Your task to perform on an android device: Open location settings Image 0: 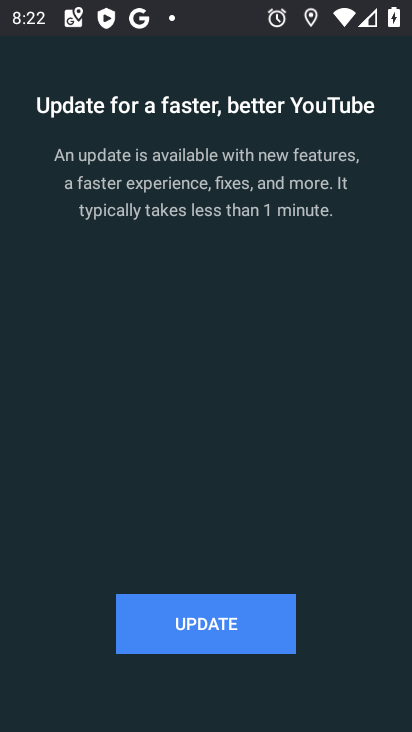
Step 0: press back button
Your task to perform on an android device: Open location settings Image 1: 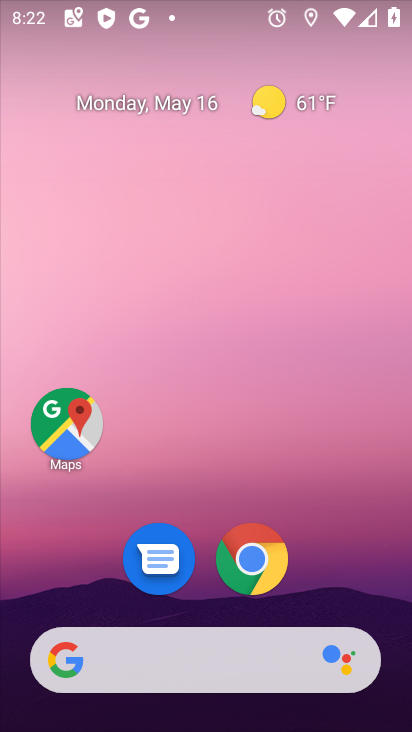
Step 1: drag from (334, 554) to (327, 230)
Your task to perform on an android device: Open location settings Image 2: 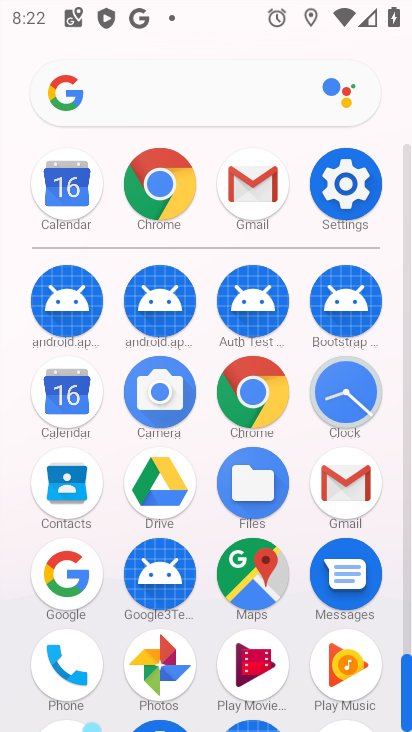
Step 2: click (344, 196)
Your task to perform on an android device: Open location settings Image 3: 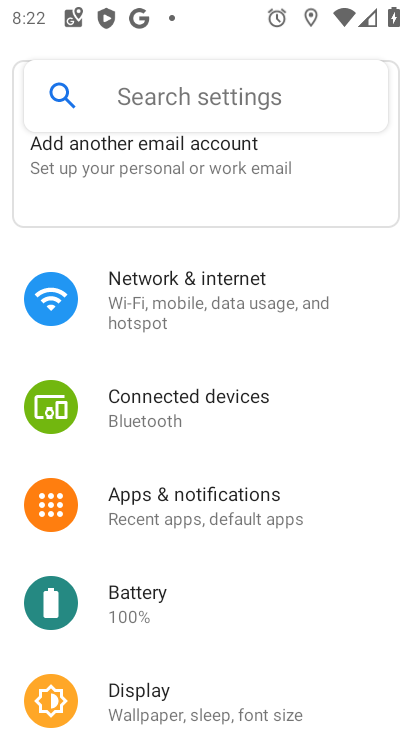
Step 3: drag from (295, 582) to (278, 210)
Your task to perform on an android device: Open location settings Image 4: 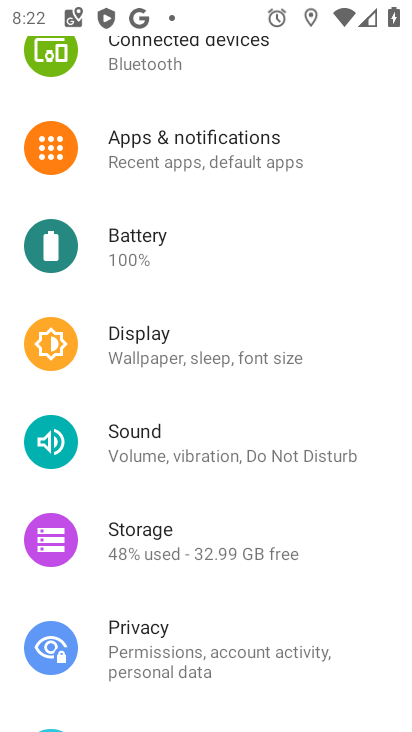
Step 4: drag from (305, 565) to (303, 221)
Your task to perform on an android device: Open location settings Image 5: 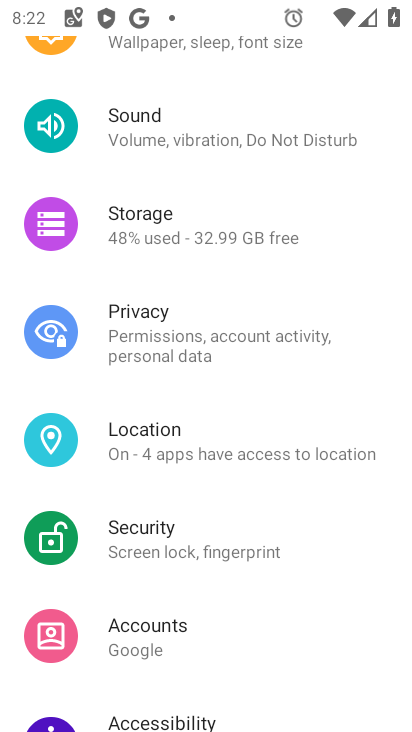
Step 5: click (262, 450)
Your task to perform on an android device: Open location settings Image 6: 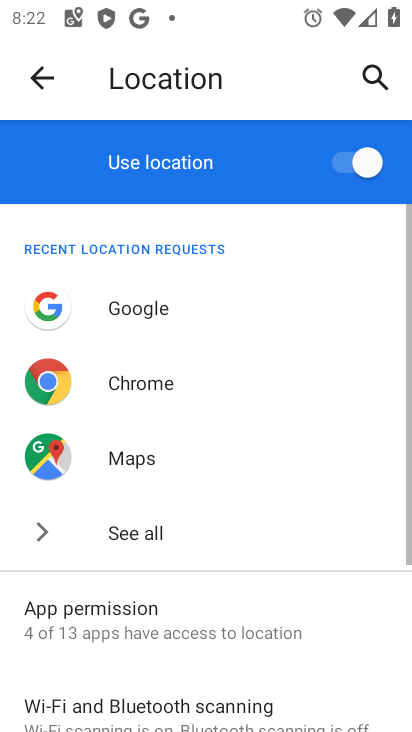
Step 6: drag from (270, 664) to (288, 289)
Your task to perform on an android device: Open location settings Image 7: 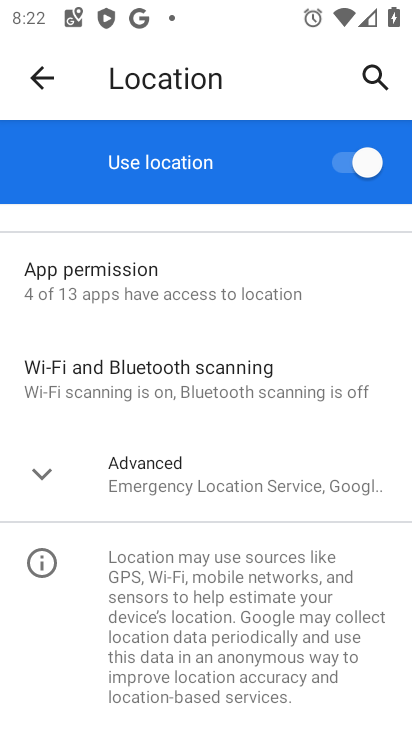
Step 7: click (33, 491)
Your task to perform on an android device: Open location settings Image 8: 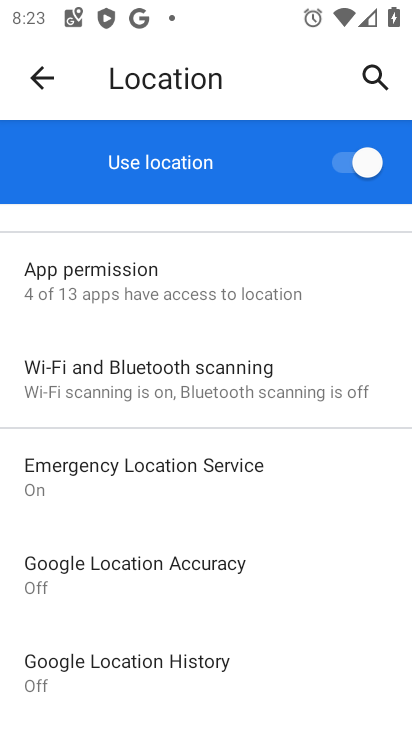
Step 8: task complete